Your task to perform on an android device: Open CNN.com Image 0: 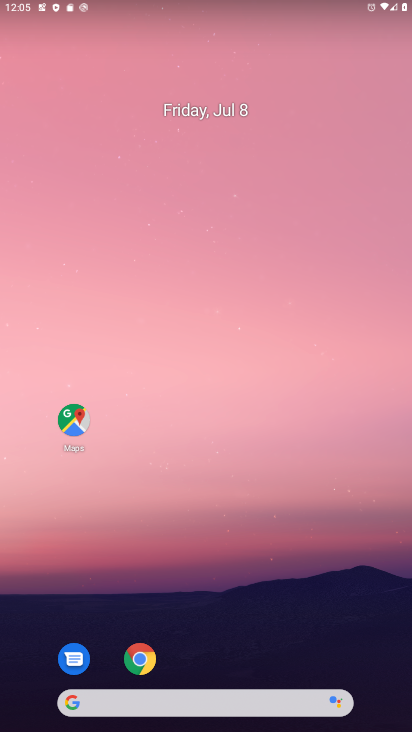
Step 0: click (209, 703)
Your task to perform on an android device: Open CNN.com Image 1: 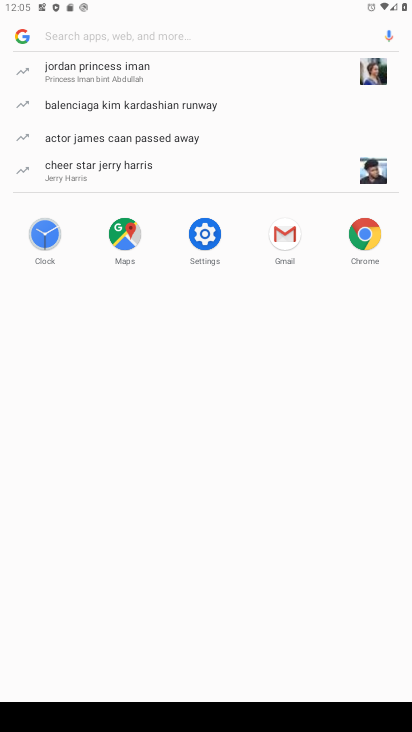
Step 1: type "cnn.com"
Your task to perform on an android device: Open CNN.com Image 2: 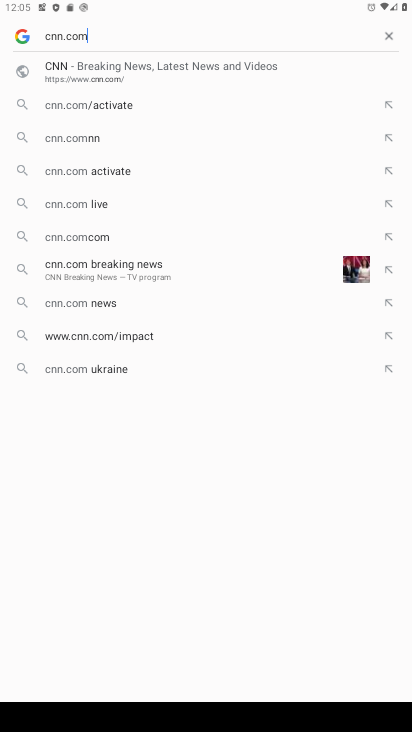
Step 2: click (140, 66)
Your task to perform on an android device: Open CNN.com Image 3: 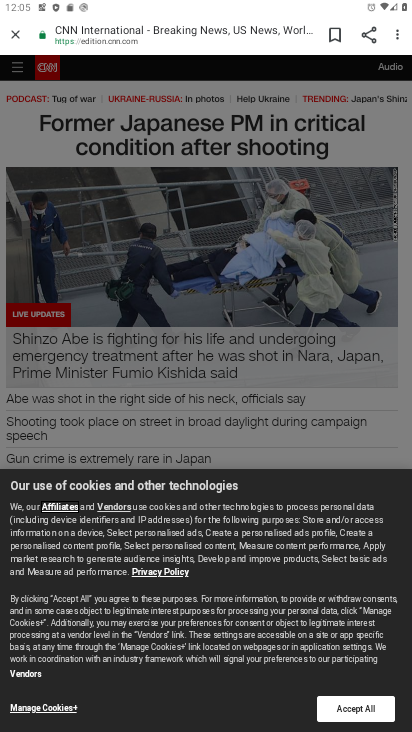
Step 3: task complete